Your task to perform on an android device: Search for seafood restaurants on Google Maps Image 0: 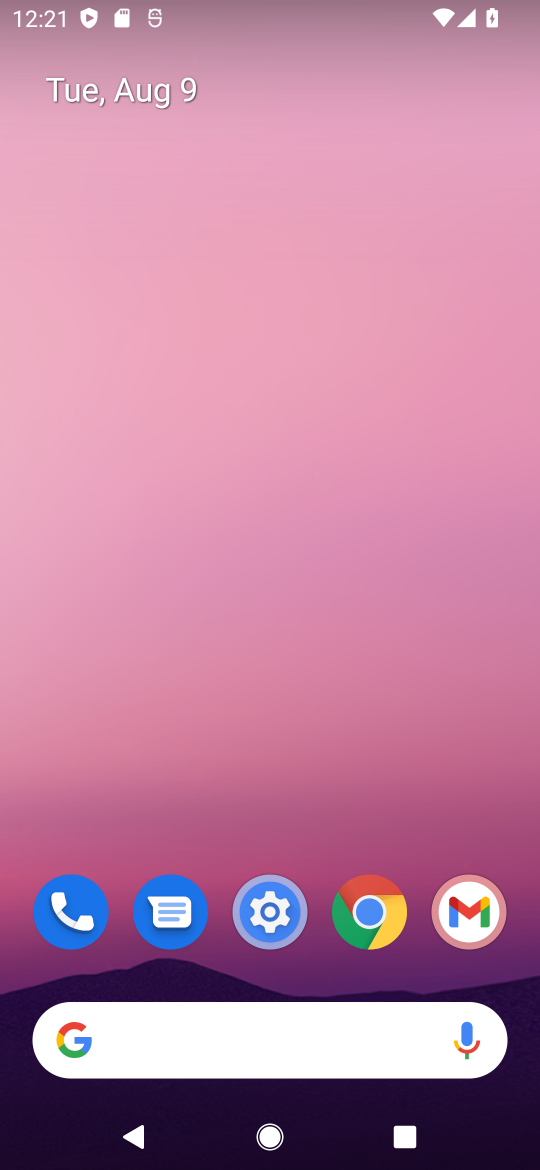
Step 0: drag from (340, 722) to (340, 421)
Your task to perform on an android device: Search for seafood restaurants on Google Maps Image 1: 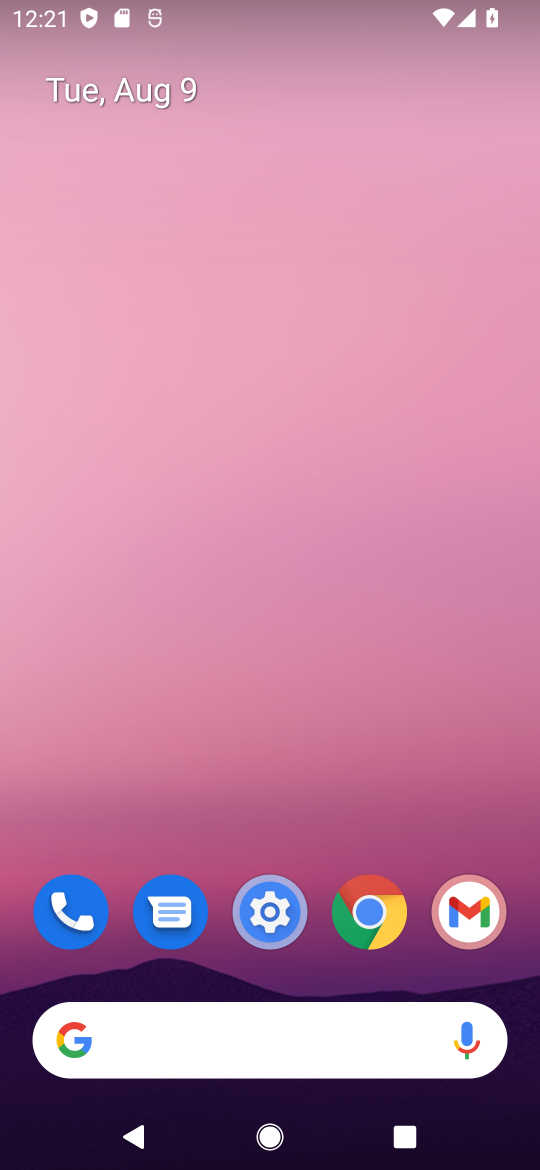
Step 1: drag from (180, 1005) to (178, 518)
Your task to perform on an android device: Search for seafood restaurants on Google Maps Image 2: 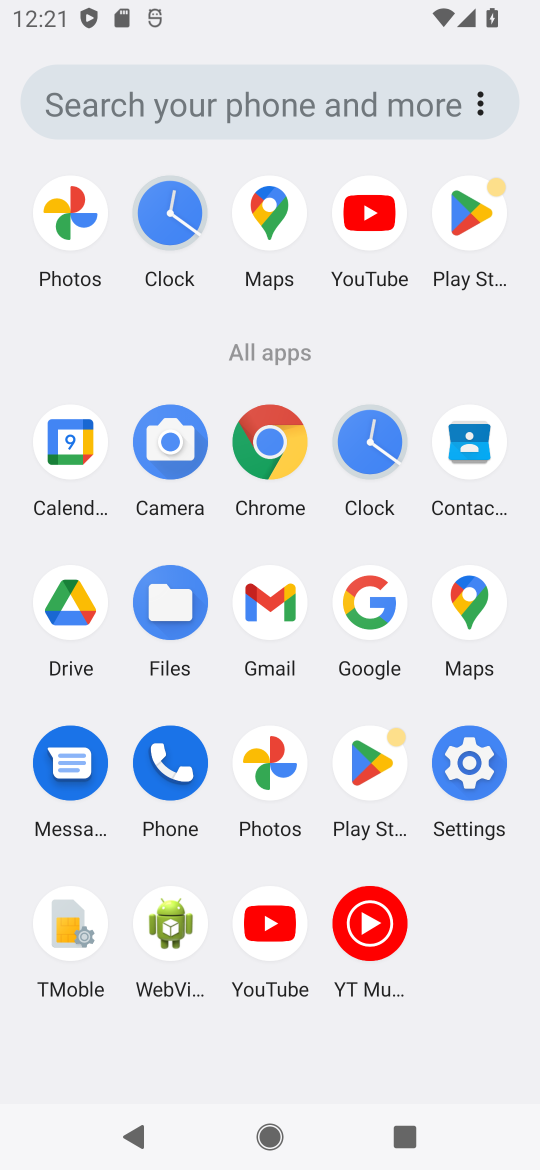
Step 2: click (474, 585)
Your task to perform on an android device: Search for seafood restaurants on Google Maps Image 3: 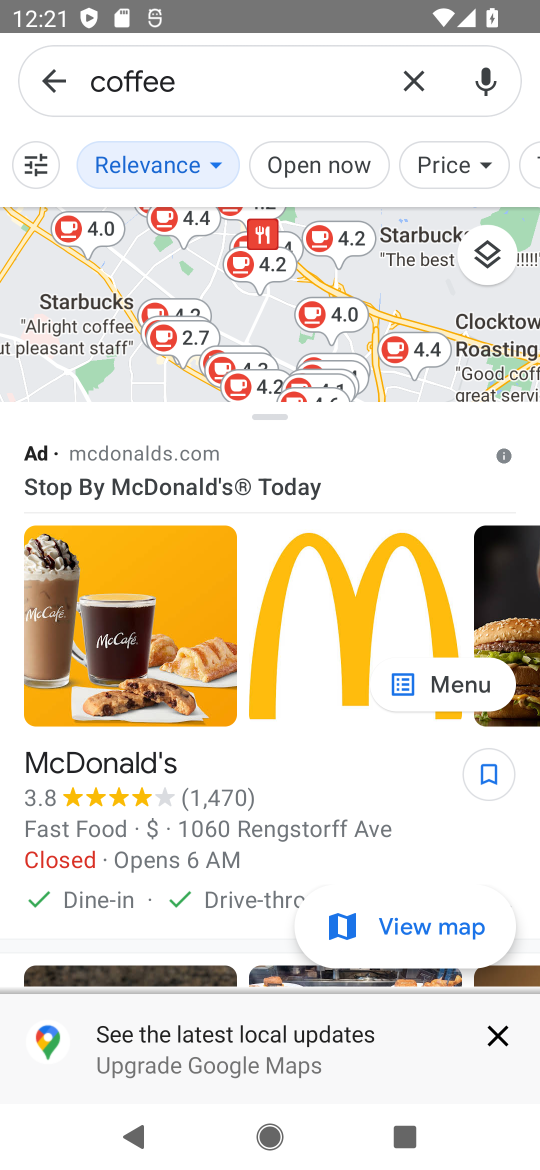
Step 3: click (413, 82)
Your task to perform on an android device: Search for seafood restaurants on Google Maps Image 4: 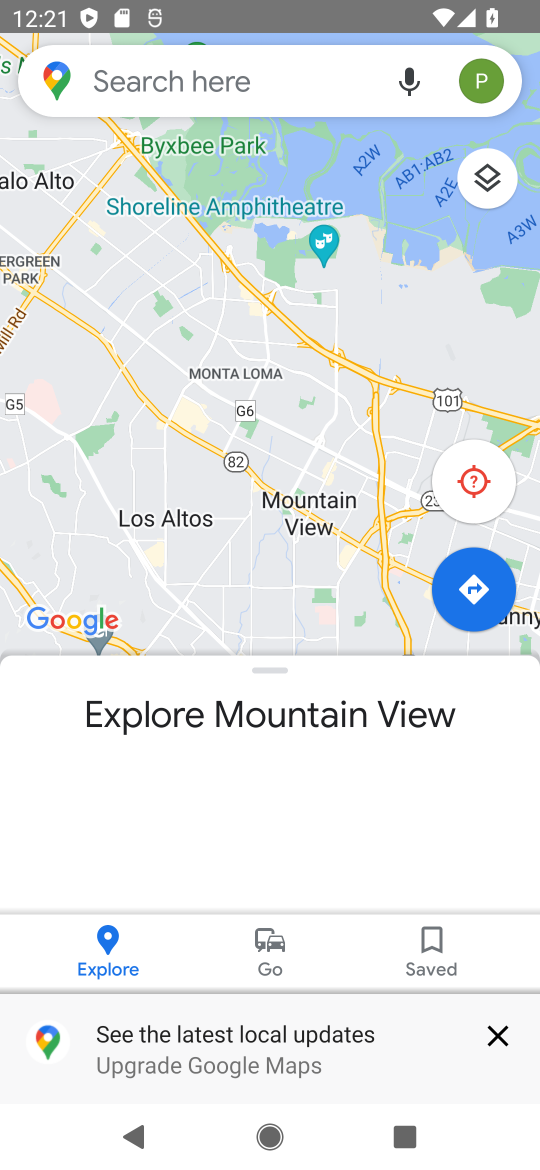
Step 4: click (246, 93)
Your task to perform on an android device: Search for seafood restaurants on Google Maps Image 5: 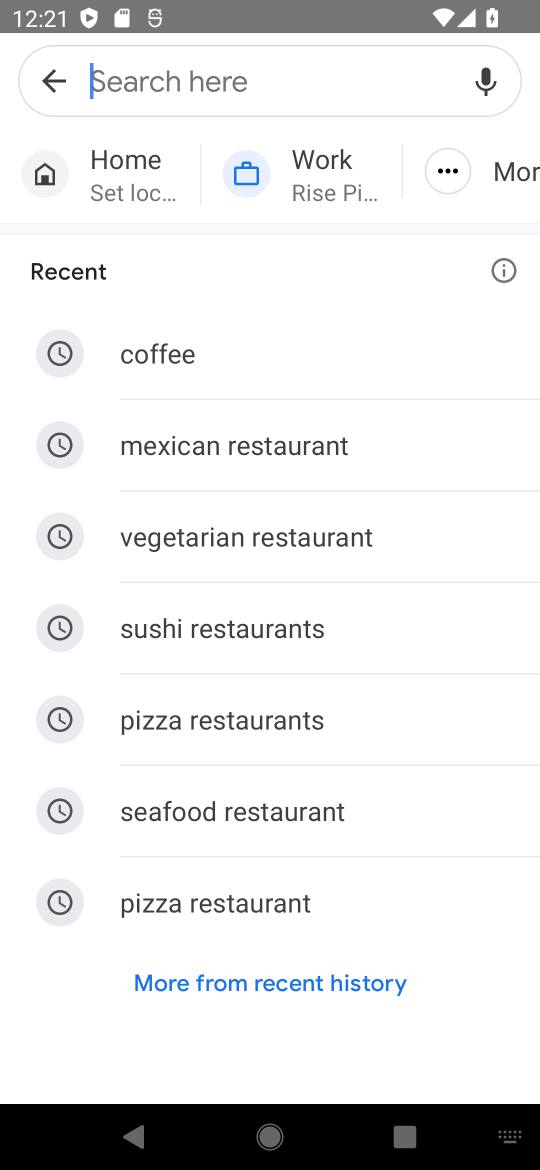
Step 5: click (162, 824)
Your task to perform on an android device: Search for seafood restaurants on Google Maps Image 6: 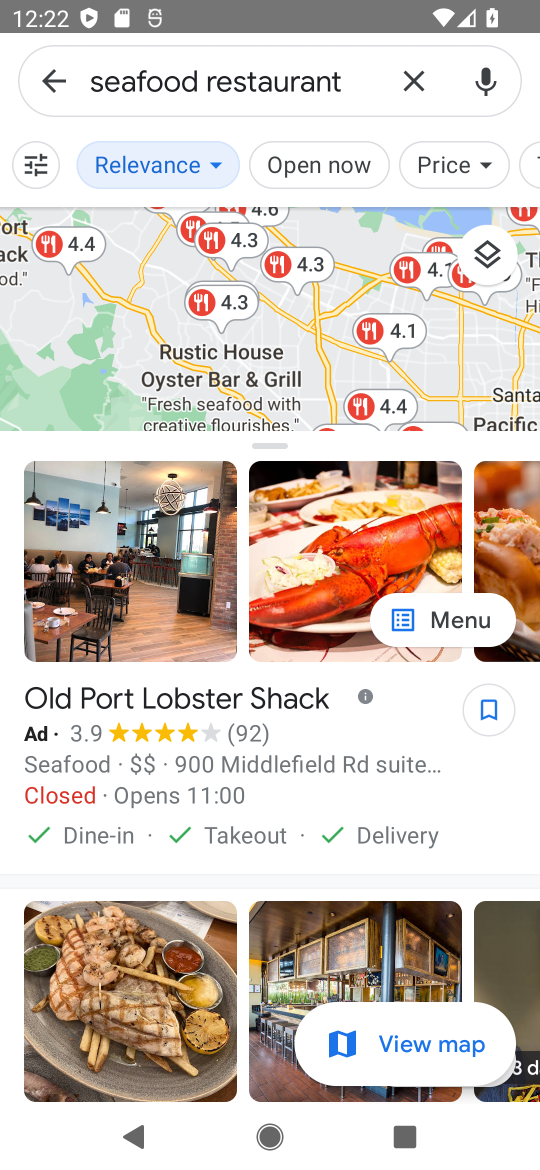
Step 6: task complete